Your task to perform on an android device: Search for sushi restaurants on Maps Image 0: 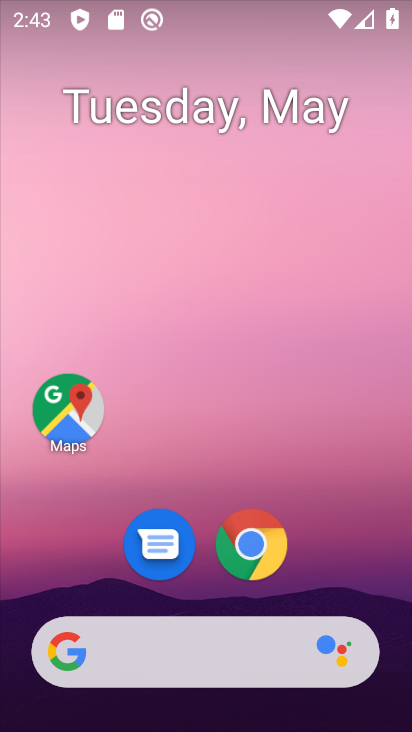
Step 0: click (67, 410)
Your task to perform on an android device: Search for sushi restaurants on Maps Image 1: 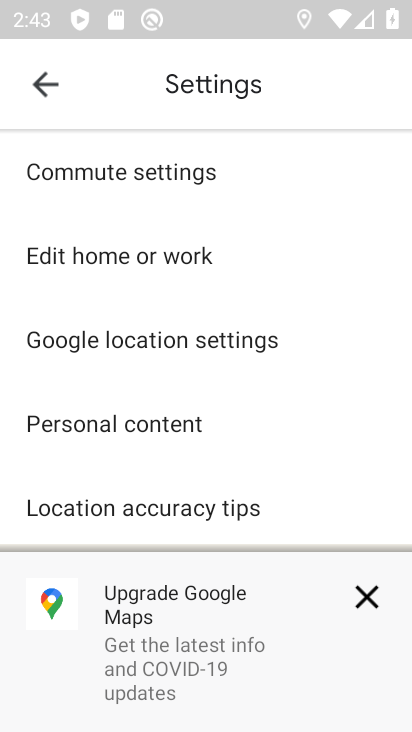
Step 1: click (366, 590)
Your task to perform on an android device: Search for sushi restaurants on Maps Image 2: 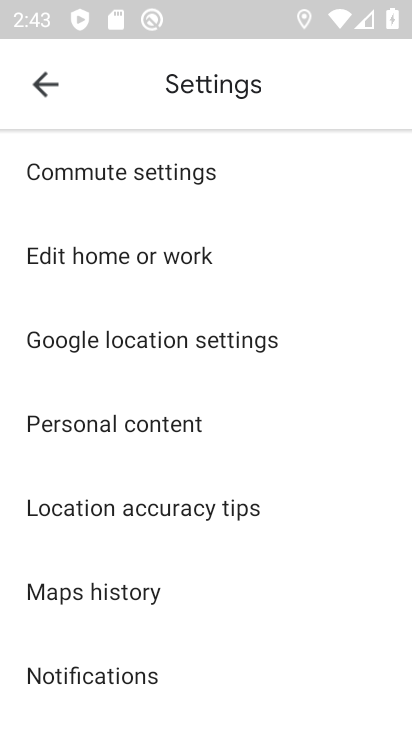
Step 2: click (40, 81)
Your task to perform on an android device: Search for sushi restaurants on Maps Image 3: 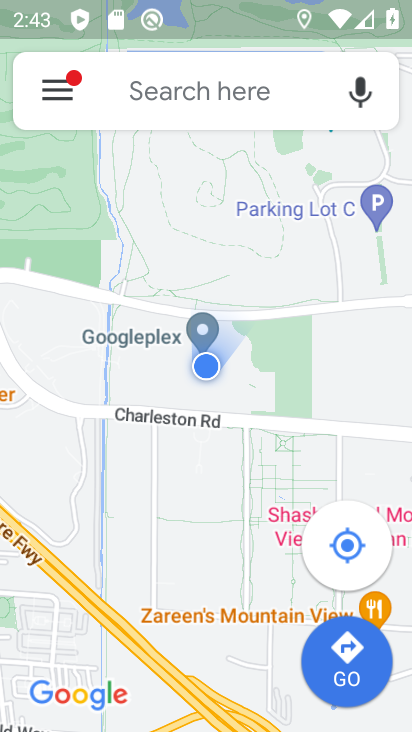
Step 3: click (163, 94)
Your task to perform on an android device: Search for sushi restaurants on Maps Image 4: 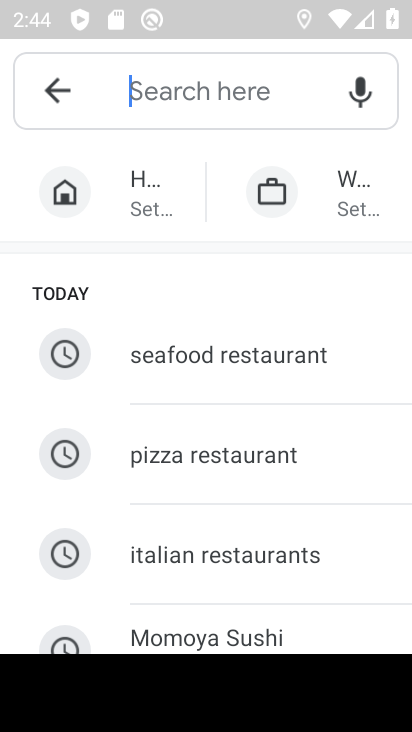
Step 4: type "sushi restaurants"
Your task to perform on an android device: Search for sushi restaurants on Maps Image 5: 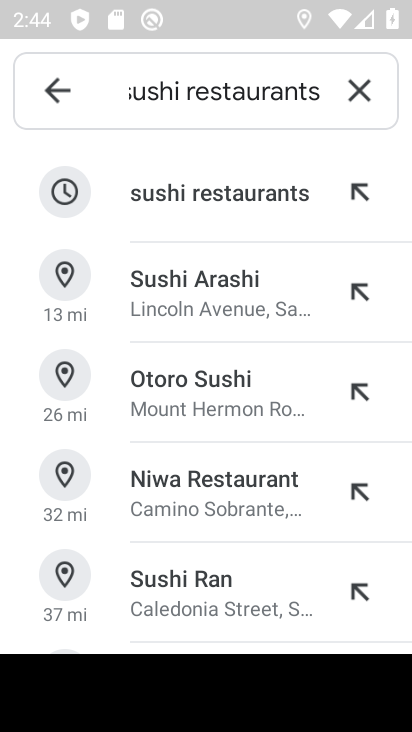
Step 5: click (200, 201)
Your task to perform on an android device: Search for sushi restaurants on Maps Image 6: 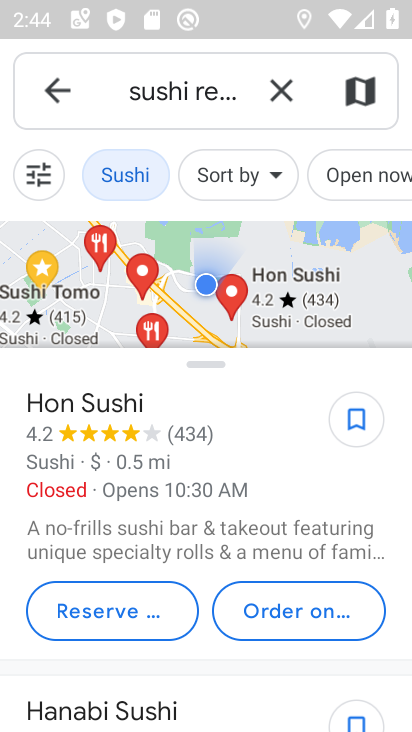
Step 6: task complete